Your task to perform on an android device: Open location settings Image 0: 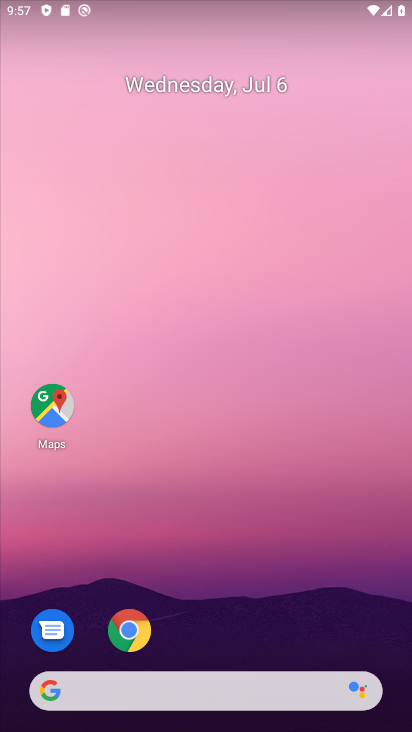
Step 0: drag from (341, 597) to (324, 131)
Your task to perform on an android device: Open location settings Image 1: 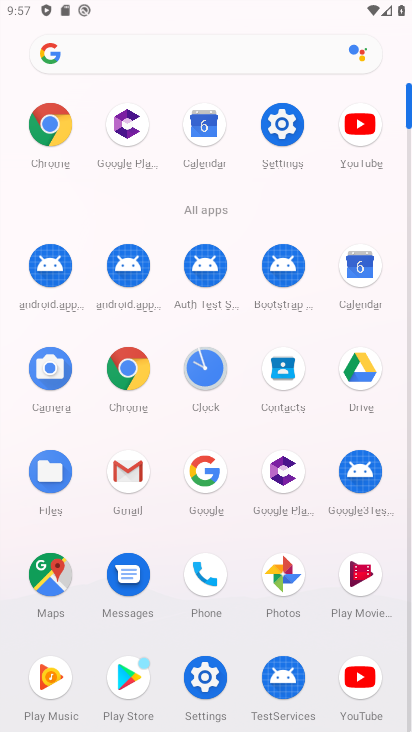
Step 1: click (297, 131)
Your task to perform on an android device: Open location settings Image 2: 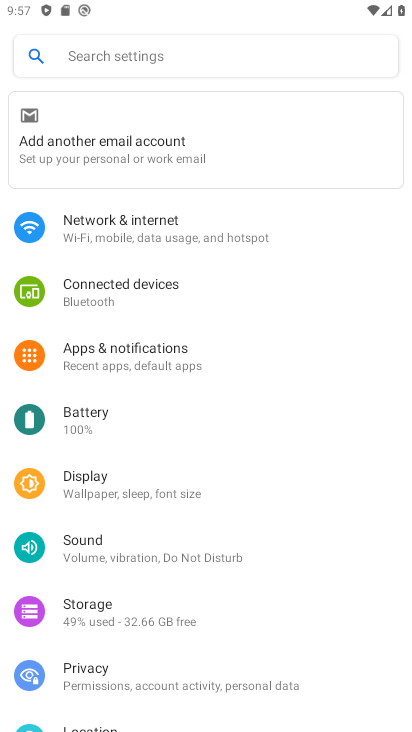
Step 2: drag from (214, 634) to (209, 356)
Your task to perform on an android device: Open location settings Image 3: 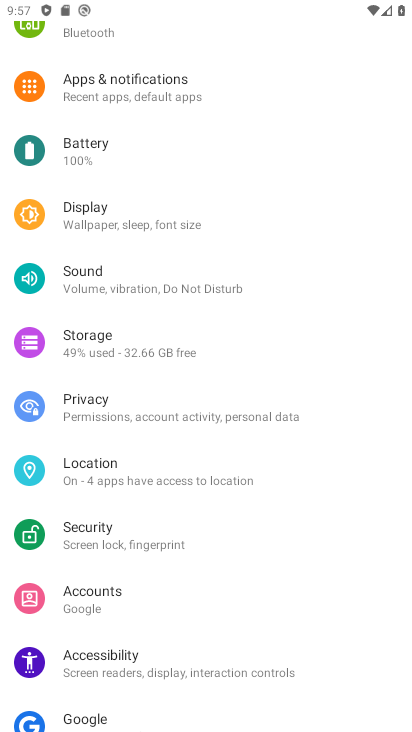
Step 3: click (157, 474)
Your task to perform on an android device: Open location settings Image 4: 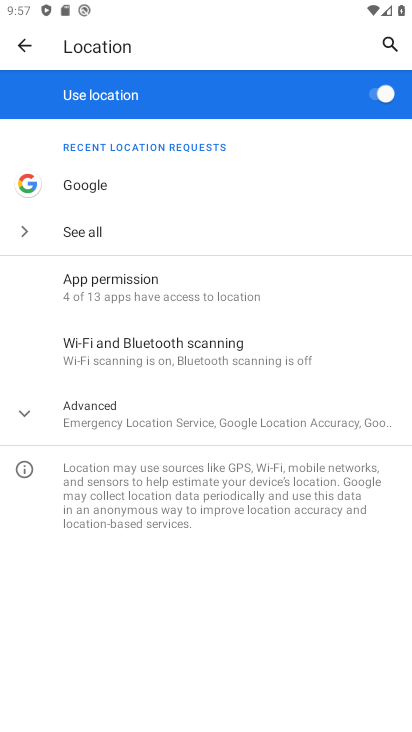
Step 4: task complete